Your task to perform on an android device: Open display settings Image 0: 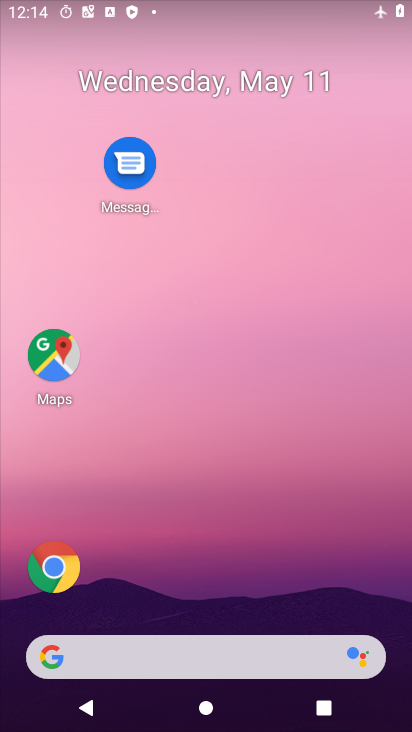
Step 0: drag from (292, 577) to (239, 141)
Your task to perform on an android device: Open display settings Image 1: 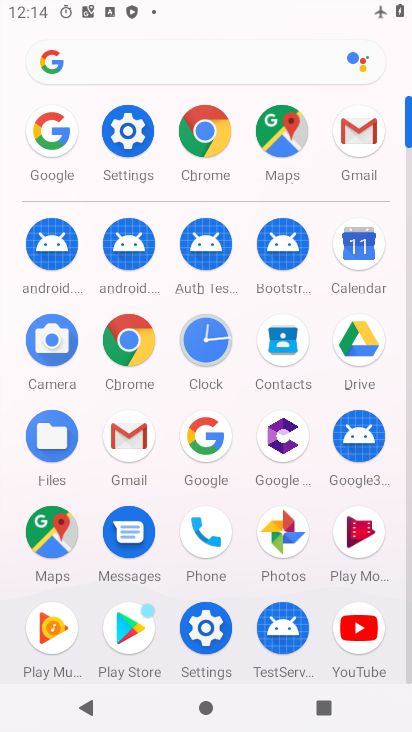
Step 1: click (106, 152)
Your task to perform on an android device: Open display settings Image 2: 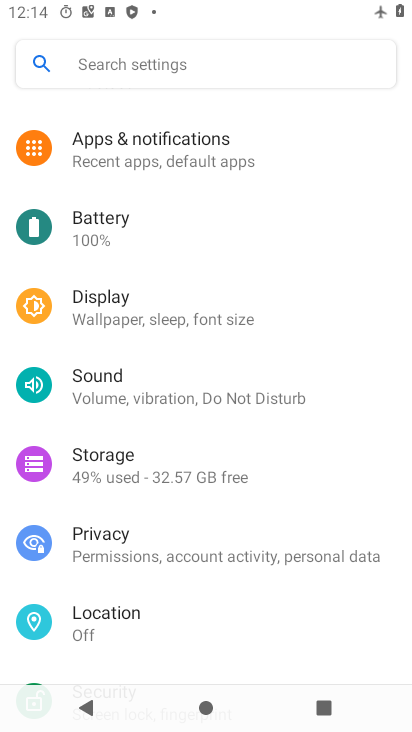
Step 2: click (148, 318)
Your task to perform on an android device: Open display settings Image 3: 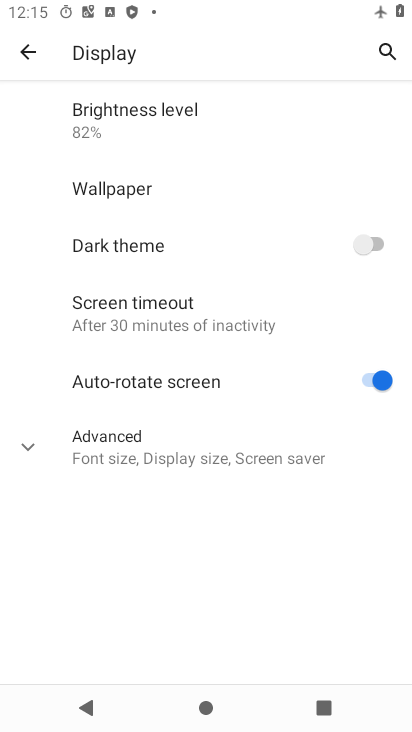
Step 3: task complete